Your task to perform on an android device: turn smart compose on in the gmail app Image 0: 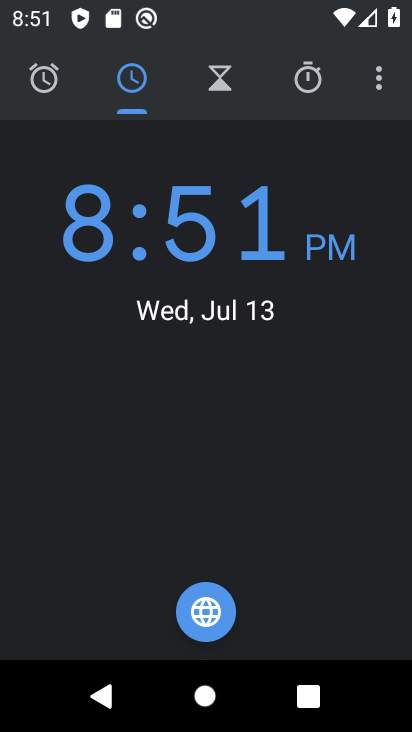
Step 0: press back button
Your task to perform on an android device: turn smart compose on in the gmail app Image 1: 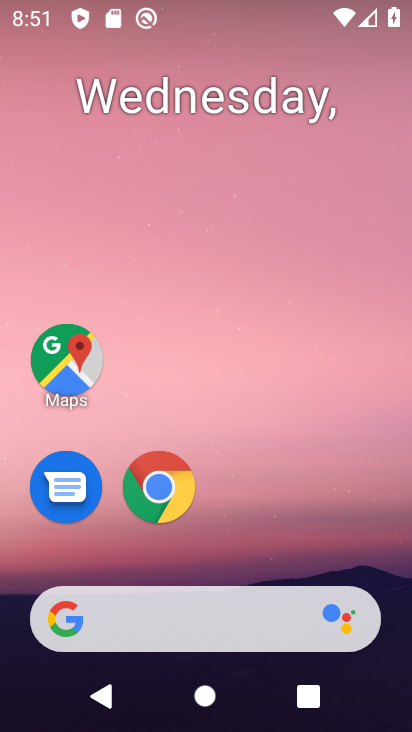
Step 1: drag from (242, 501) to (320, 47)
Your task to perform on an android device: turn smart compose on in the gmail app Image 2: 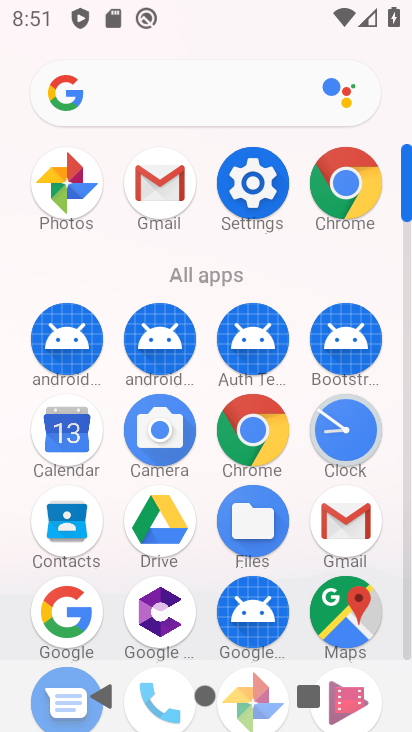
Step 2: click (172, 177)
Your task to perform on an android device: turn smart compose on in the gmail app Image 3: 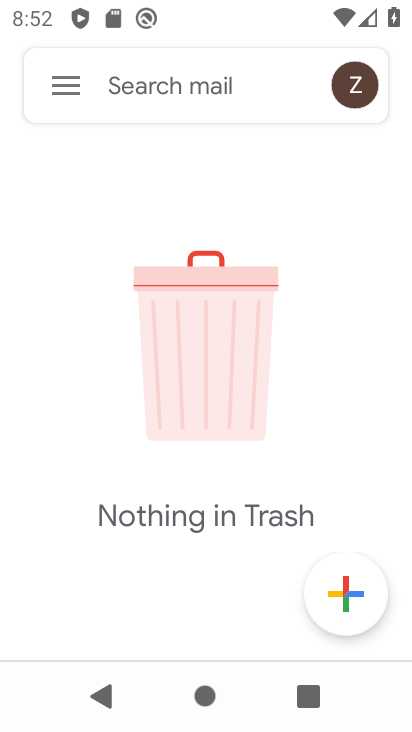
Step 3: click (61, 78)
Your task to perform on an android device: turn smart compose on in the gmail app Image 4: 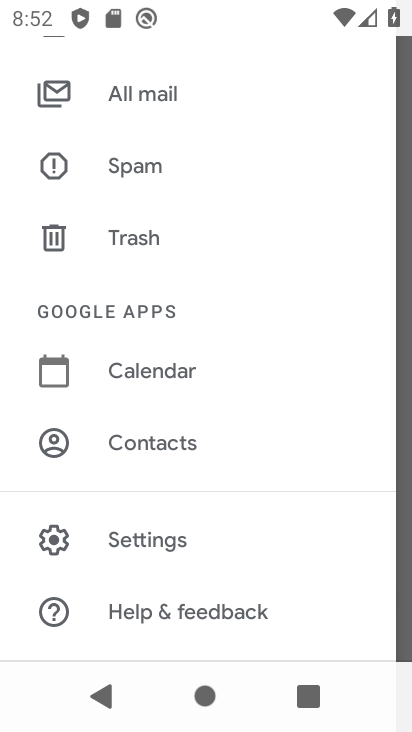
Step 4: click (133, 539)
Your task to perform on an android device: turn smart compose on in the gmail app Image 5: 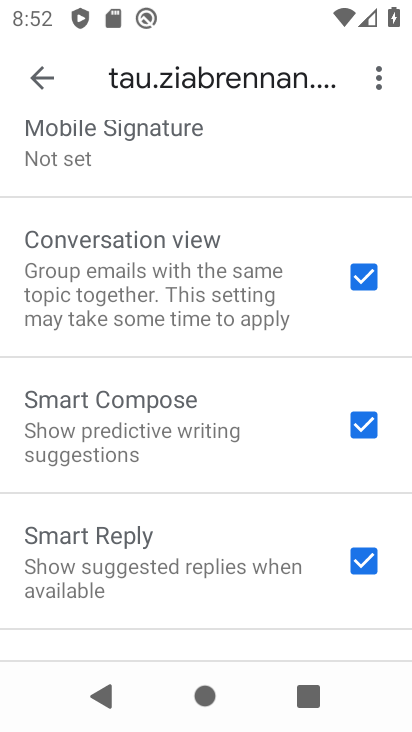
Step 5: task complete